Your task to perform on an android device: toggle location history Image 0: 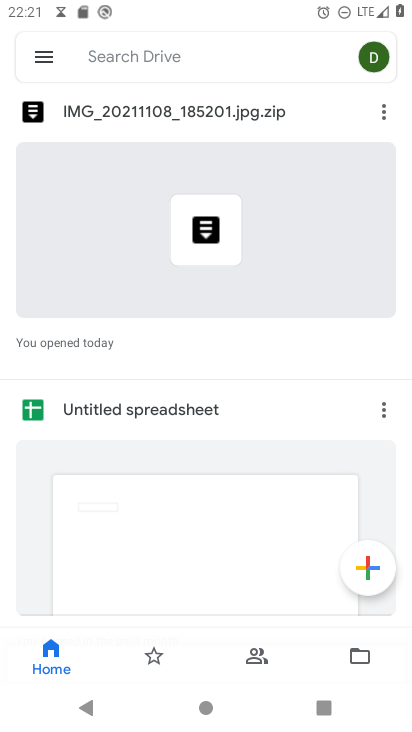
Step 0: press home button
Your task to perform on an android device: toggle location history Image 1: 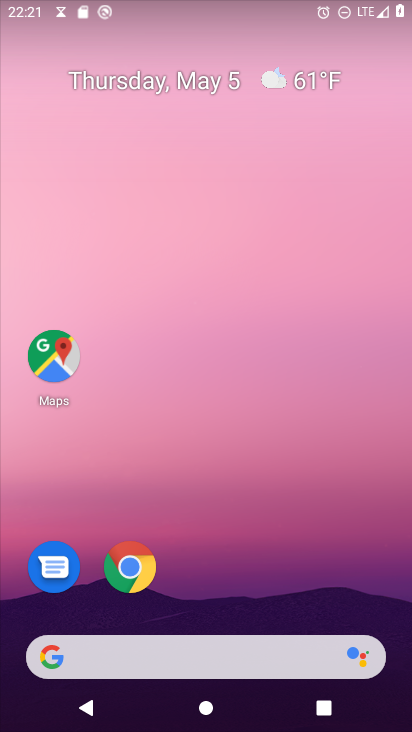
Step 1: drag from (212, 729) to (206, 191)
Your task to perform on an android device: toggle location history Image 2: 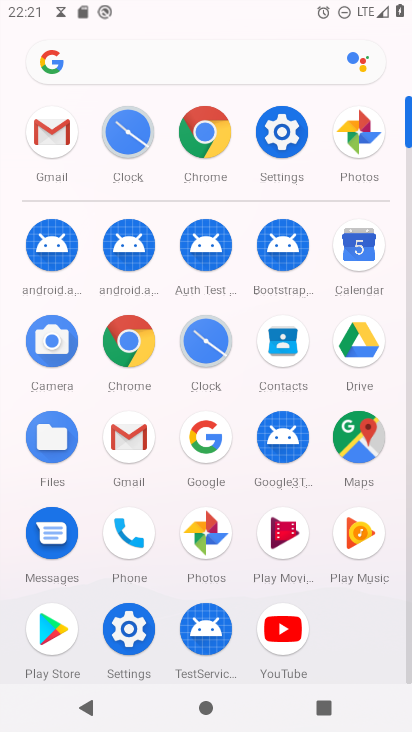
Step 2: click (285, 130)
Your task to perform on an android device: toggle location history Image 3: 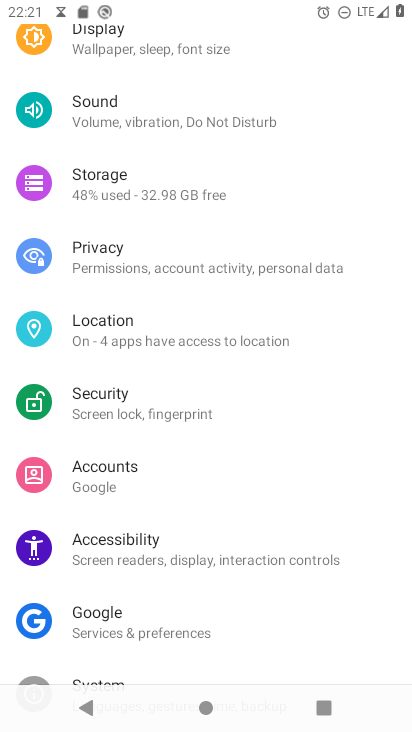
Step 3: click (119, 332)
Your task to perform on an android device: toggle location history Image 4: 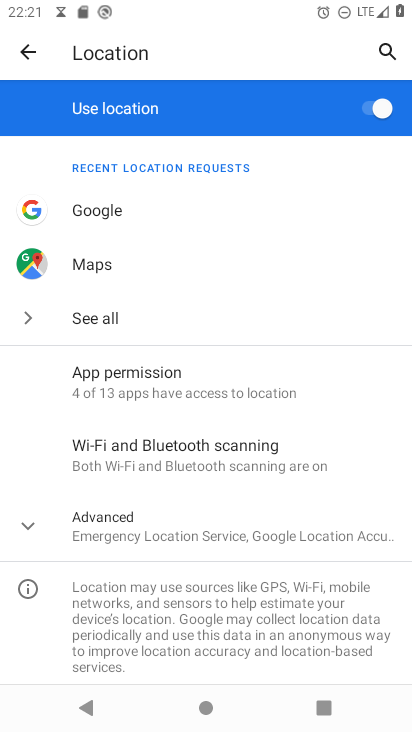
Step 4: click (132, 522)
Your task to perform on an android device: toggle location history Image 5: 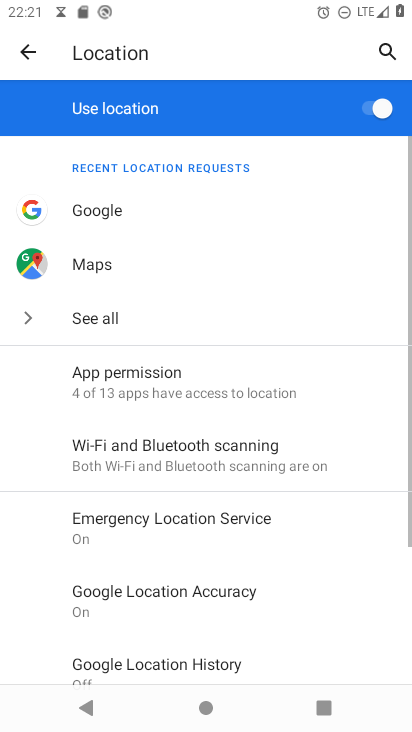
Step 5: drag from (166, 656) to (166, 418)
Your task to perform on an android device: toggle location history Image 6: 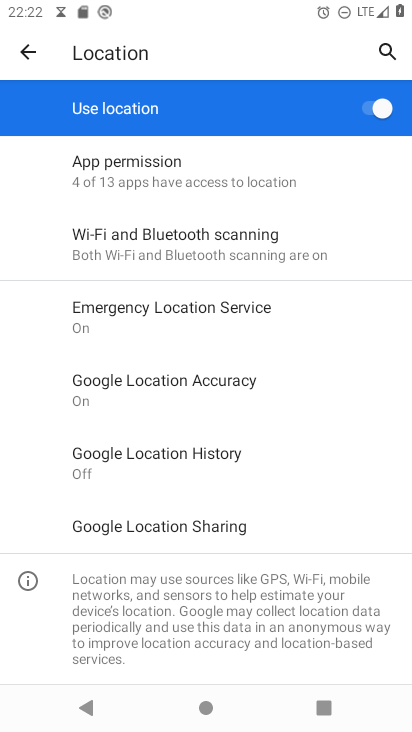
Step 6: click (154, 452)
Your task to perform on an android device: toggle location history Image 7: 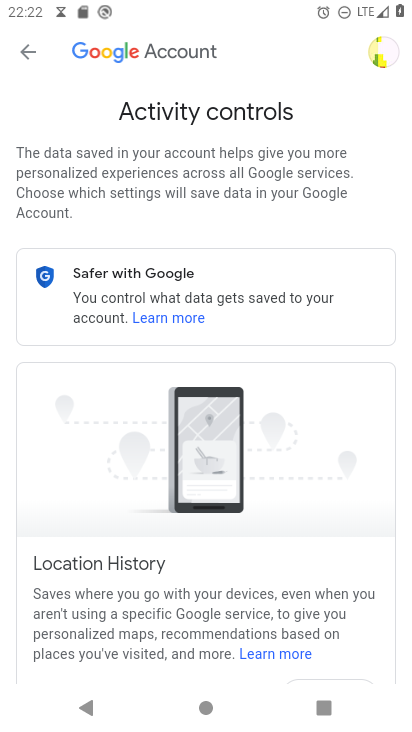
Step 7: drag from (178, 650) to (181, 224)
Your task to perform on an android device: toggle location history Image 8: 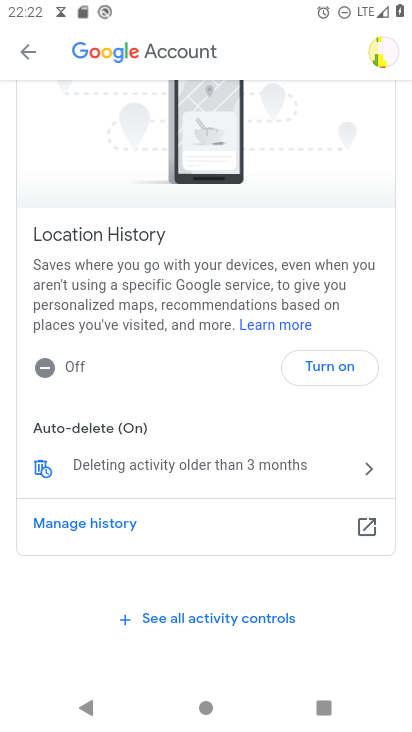
Step 8: click (333, 363)
Your task to perform on an android device: toggle location history Image 9: 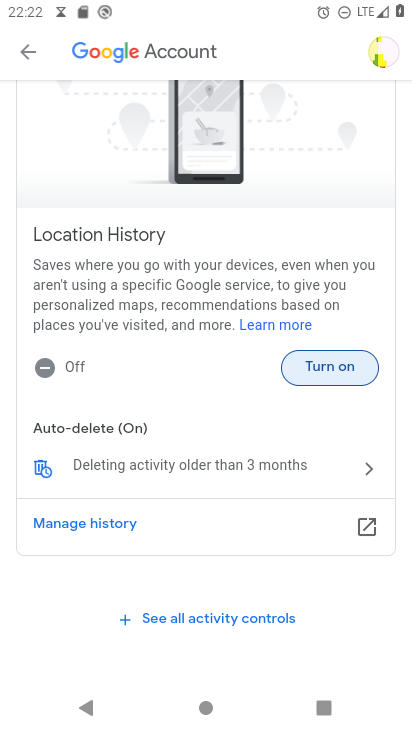
Step 9: click (339, 367)
Your task to perform on an android device: toggle location history Image 10: 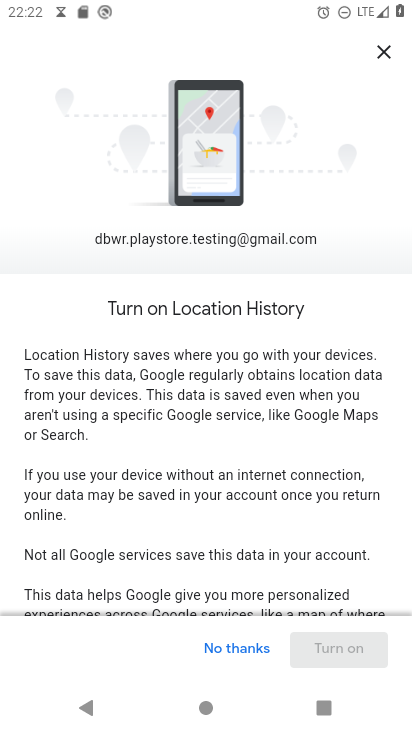
Step 10: drag from (278, 582) to (272, 263)
Your task to perform on an android device: toggle location history Image 11: 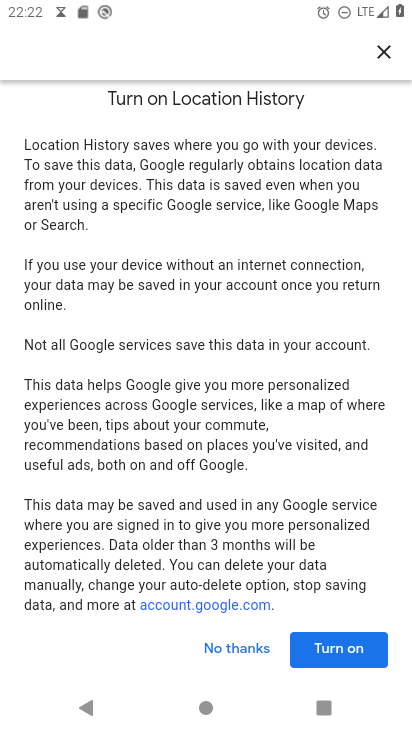
Step 11: click (323, 648)
Your task to perform on an android device: toggle location history Image 12: 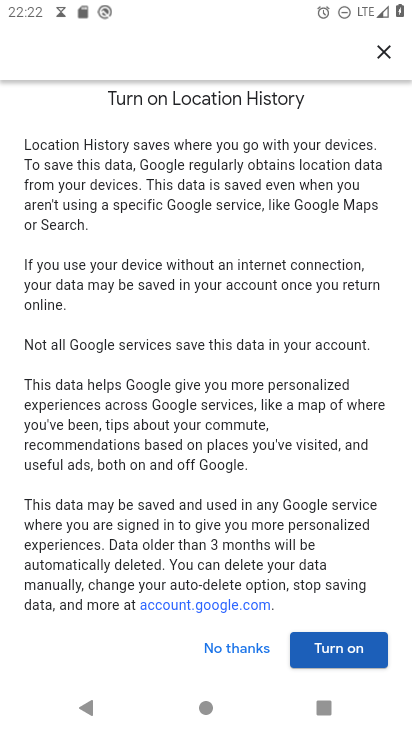
Step 12: click (342, 645)
Your task to perform on an android device: toggle location history Image 13: 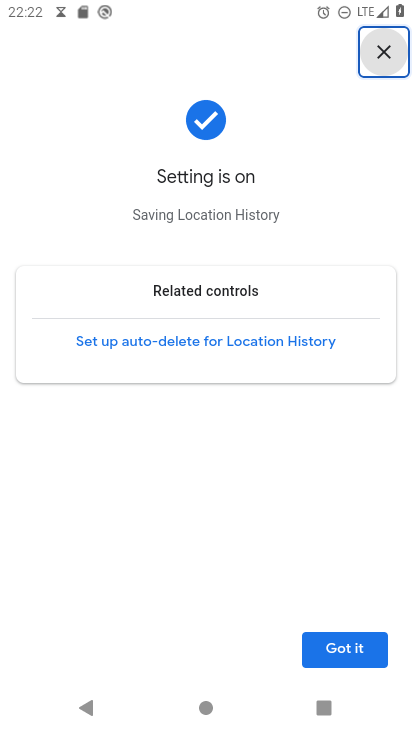
Step 13: task complete